Your task to perform on an android device: check data usage Image 0: 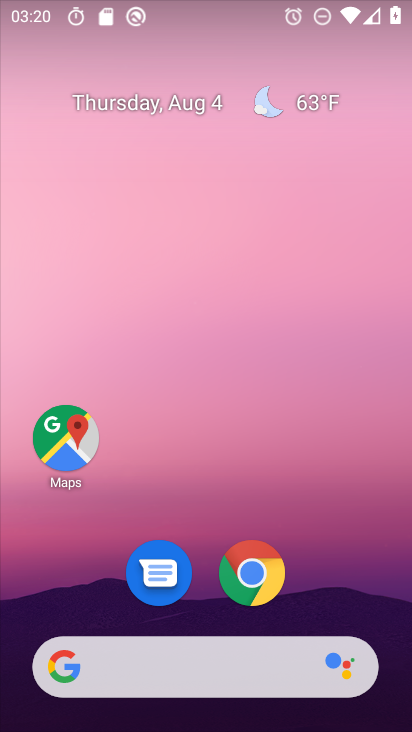
Step 0: drag from (355, 553) to (276, 28)
Your task to perform on an android device: check data usage Image 1: 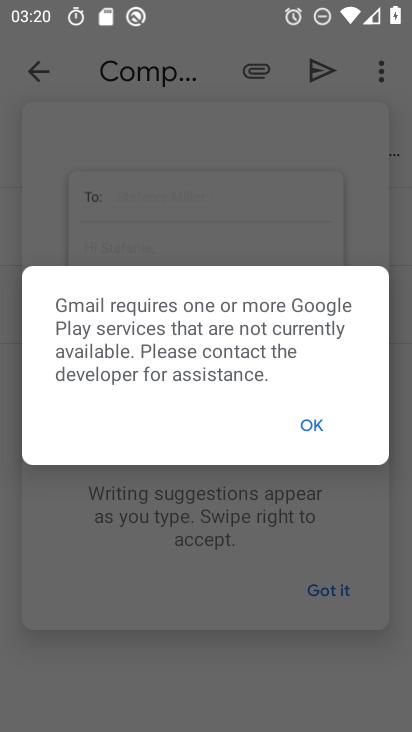
Step 1: press home button
Your task to perform on an android device: check data usage Image 2: 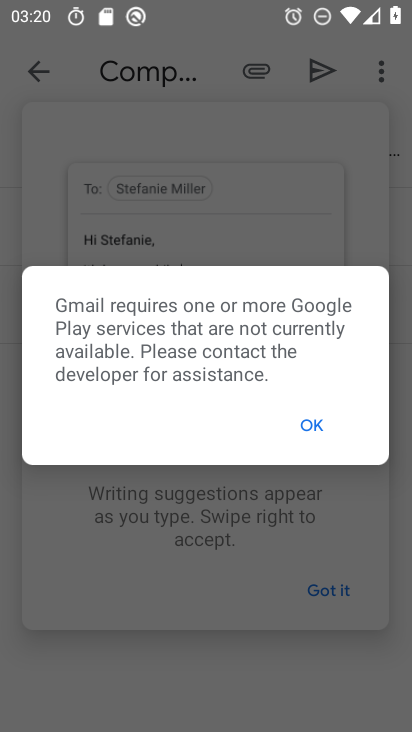
Step 2: press home button
Your task to perform on an android device: check data usage Image 3: 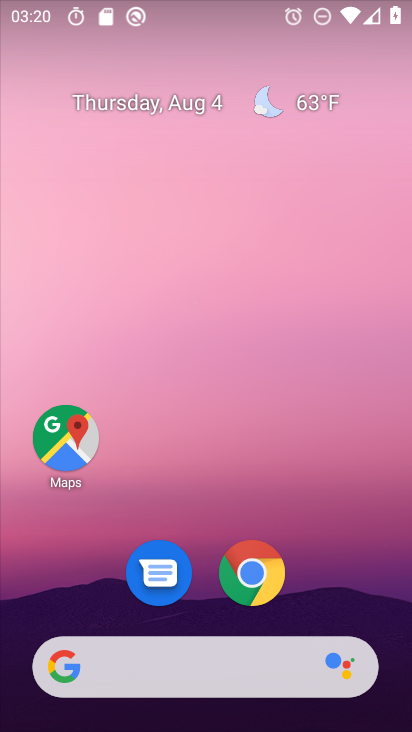
Step 3: drag from (355, 561) to (312, 81)
Your task to perform on an android device: check data usage Image 4: 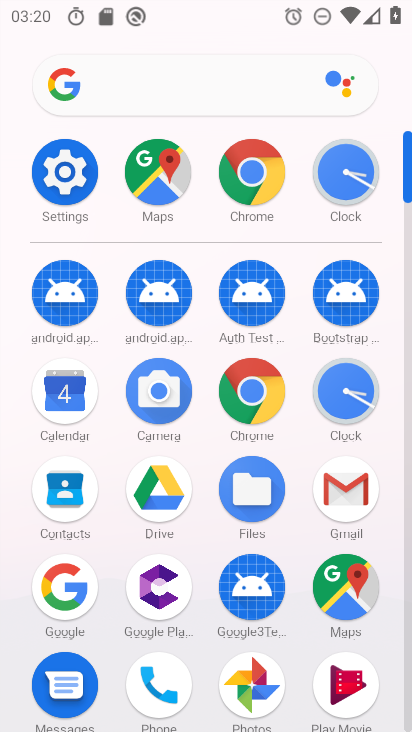
Step 4: click (65, 186)
Your task to perform on an android device: check data usage Image 5: 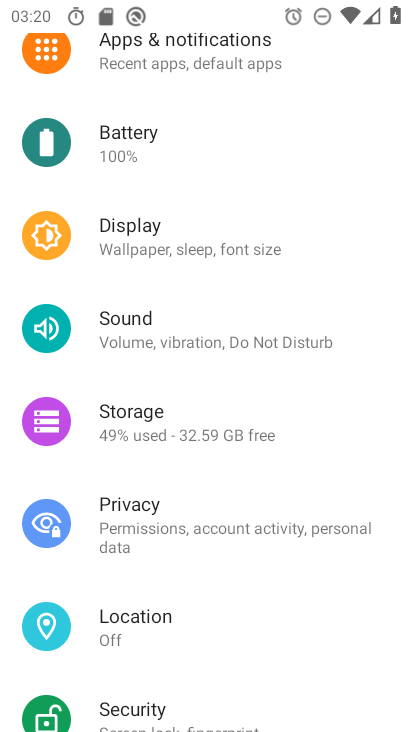
Step 5: drag from (252, 130) to (230, 599)
Your task to perform on an android device: check data usage Image 6: 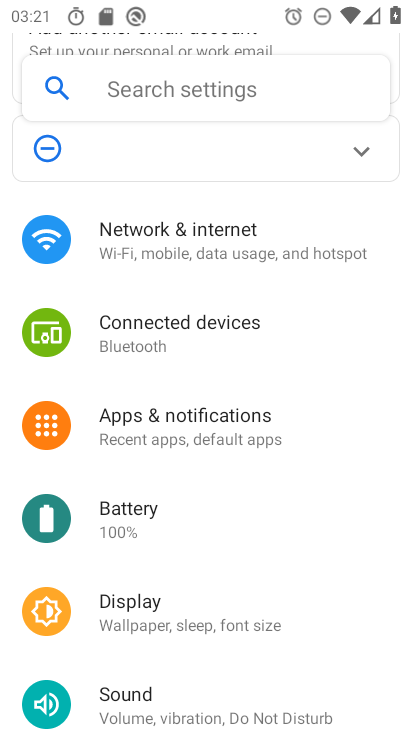
Step 6: click (239, 260)
Your task to perform on an android device: check data usage Image 7: 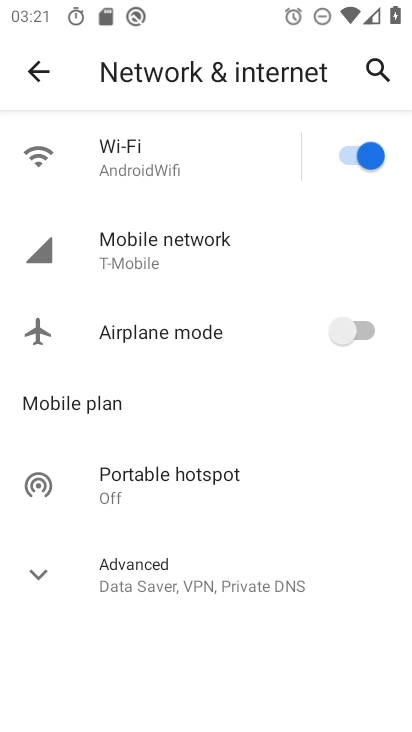
Step 7: click (198, 245)
Your task to perform on an android device: check data usage Image 8: 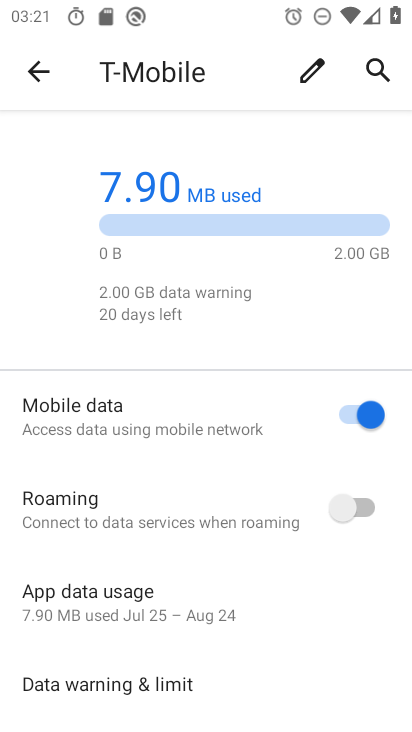
Step 8: task complete